Your task to perform on an android device: Go to battery settings Image 0: 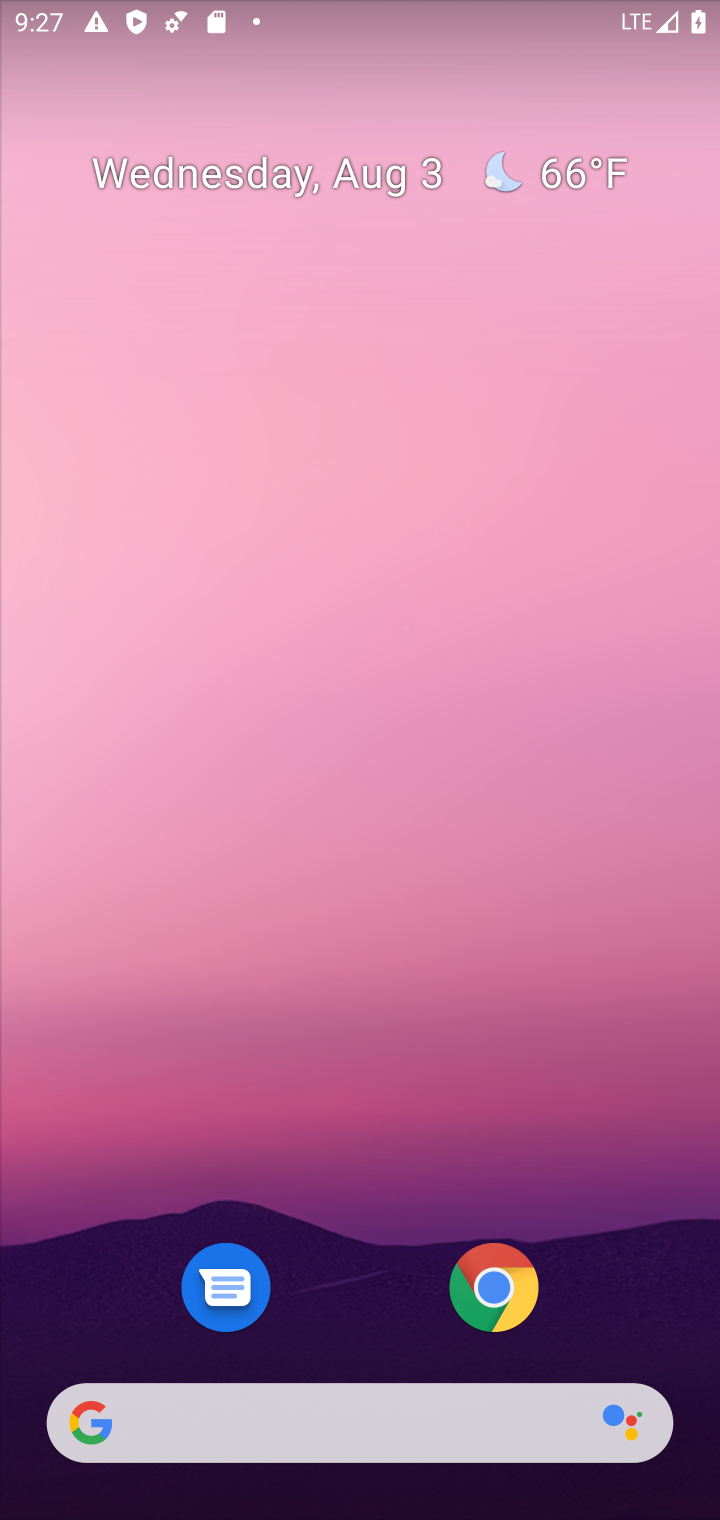
Step 0: drag from (314, 1294) to (292, 674)
Your task to perform on an android device: Go to battery settings Image 1: 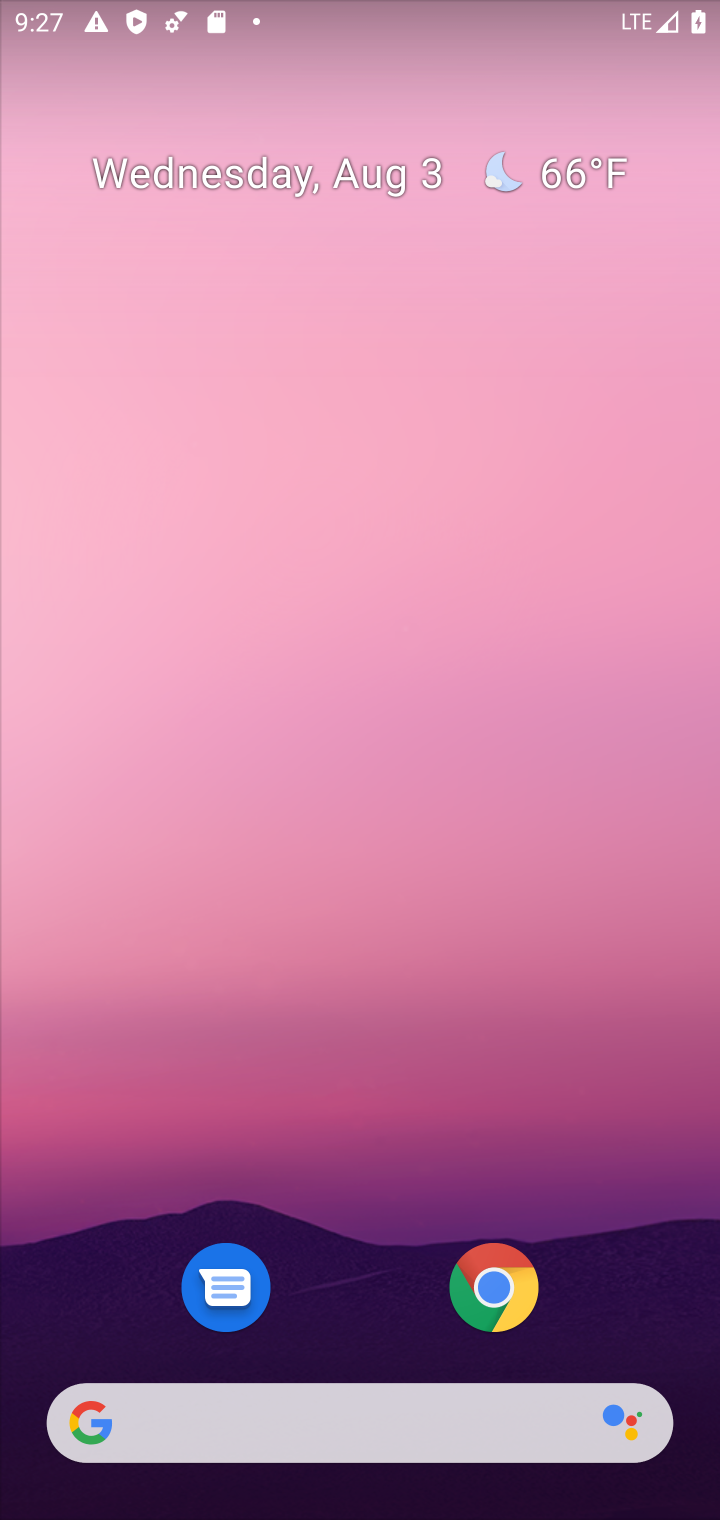
Step 1: drag from (354, 1232) to (541, 3)
Your task to perform on an android device: Go to battery settings Image 2: 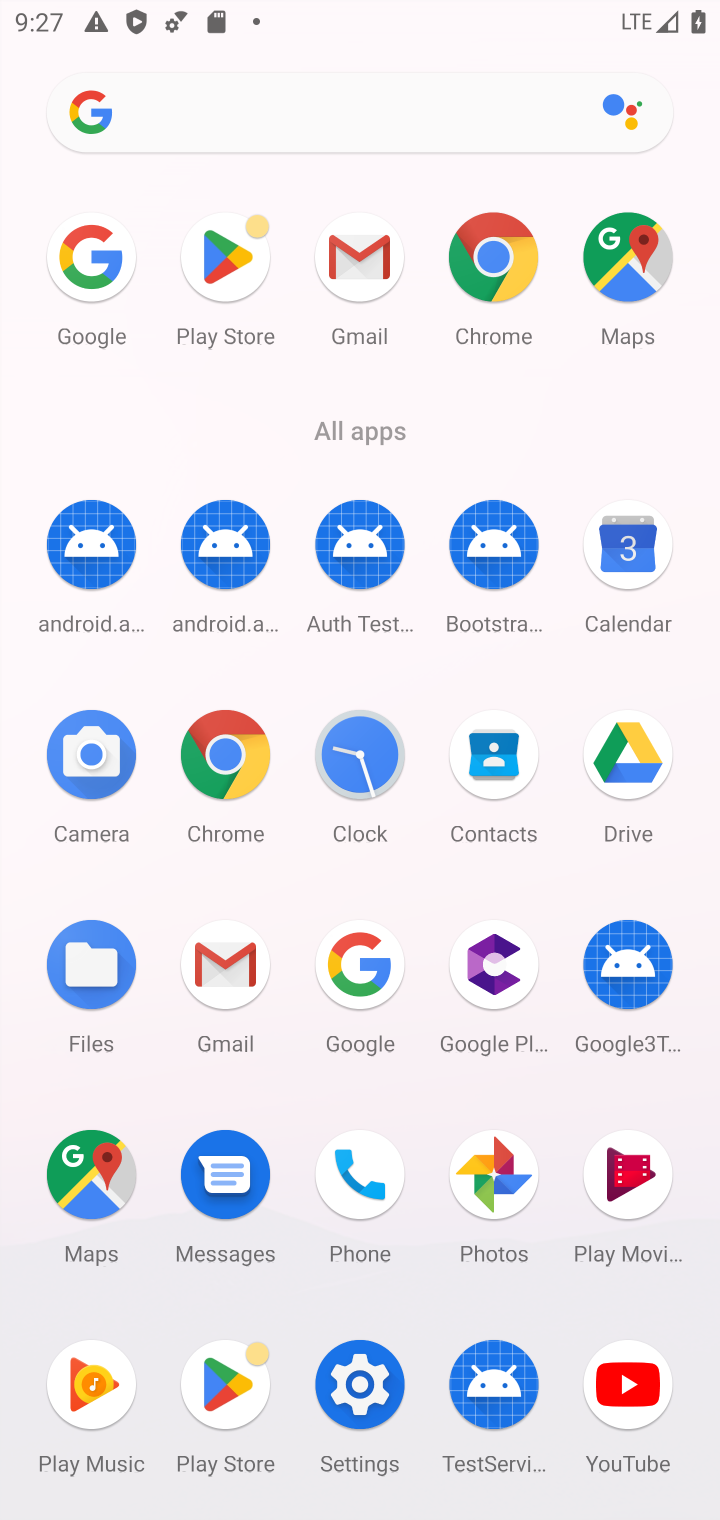
Step 2: click (353, 1378)
Your task to perform on an android device: Go to battery settings Image 3: 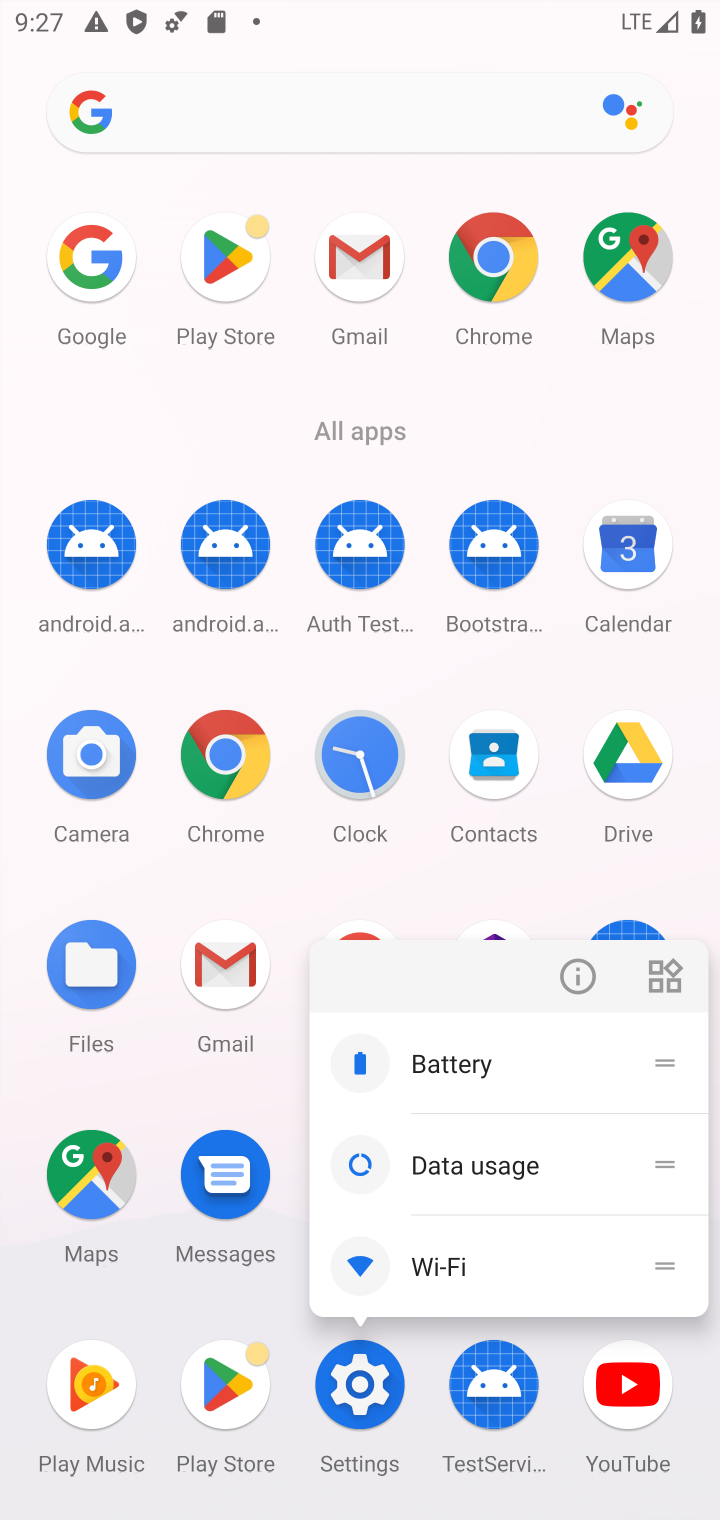
Step 3: click (361, 1385)
Your task to perform on an android device: Go to battery settings Image 4: 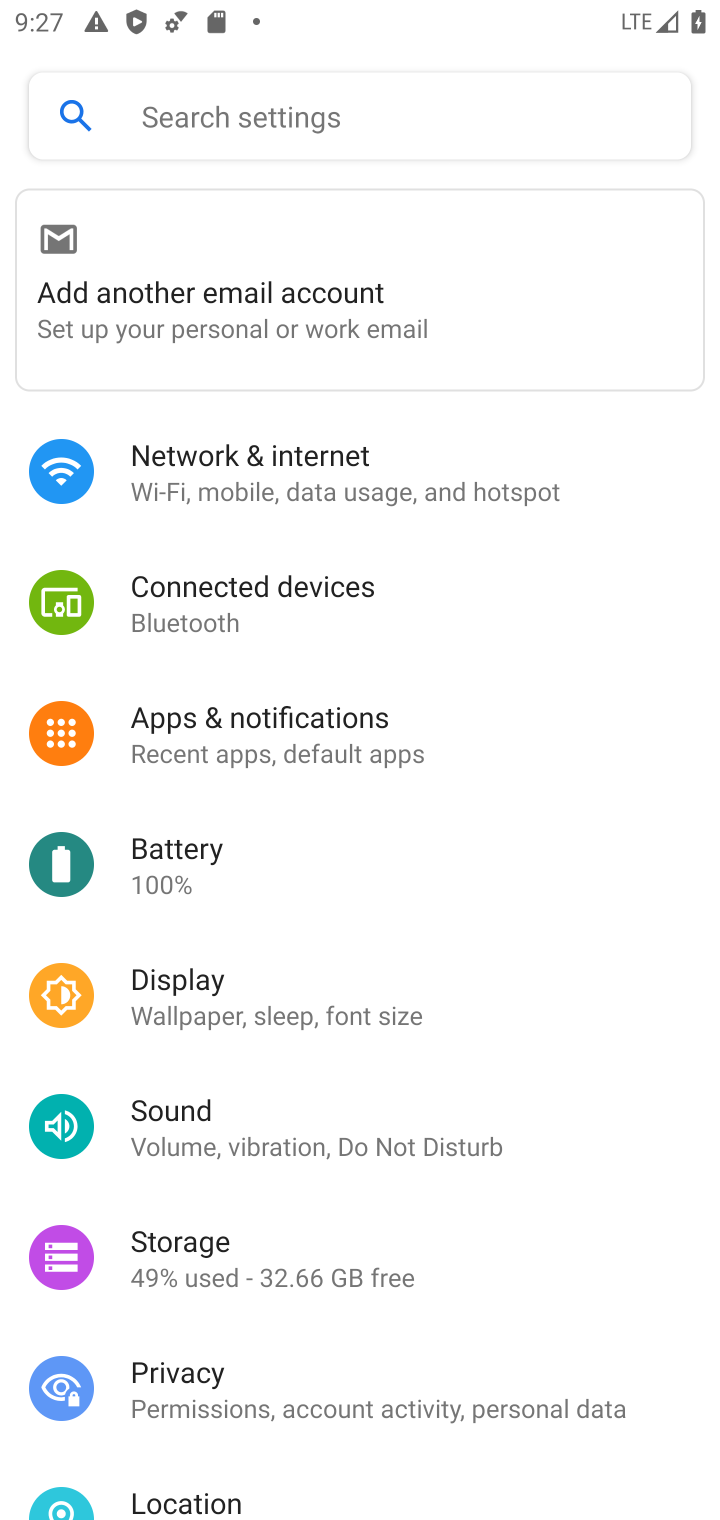
Step 4: drag from (173, 662) to (663, 736)
Your task to perform on an android device: Go to battery settings Image 5: 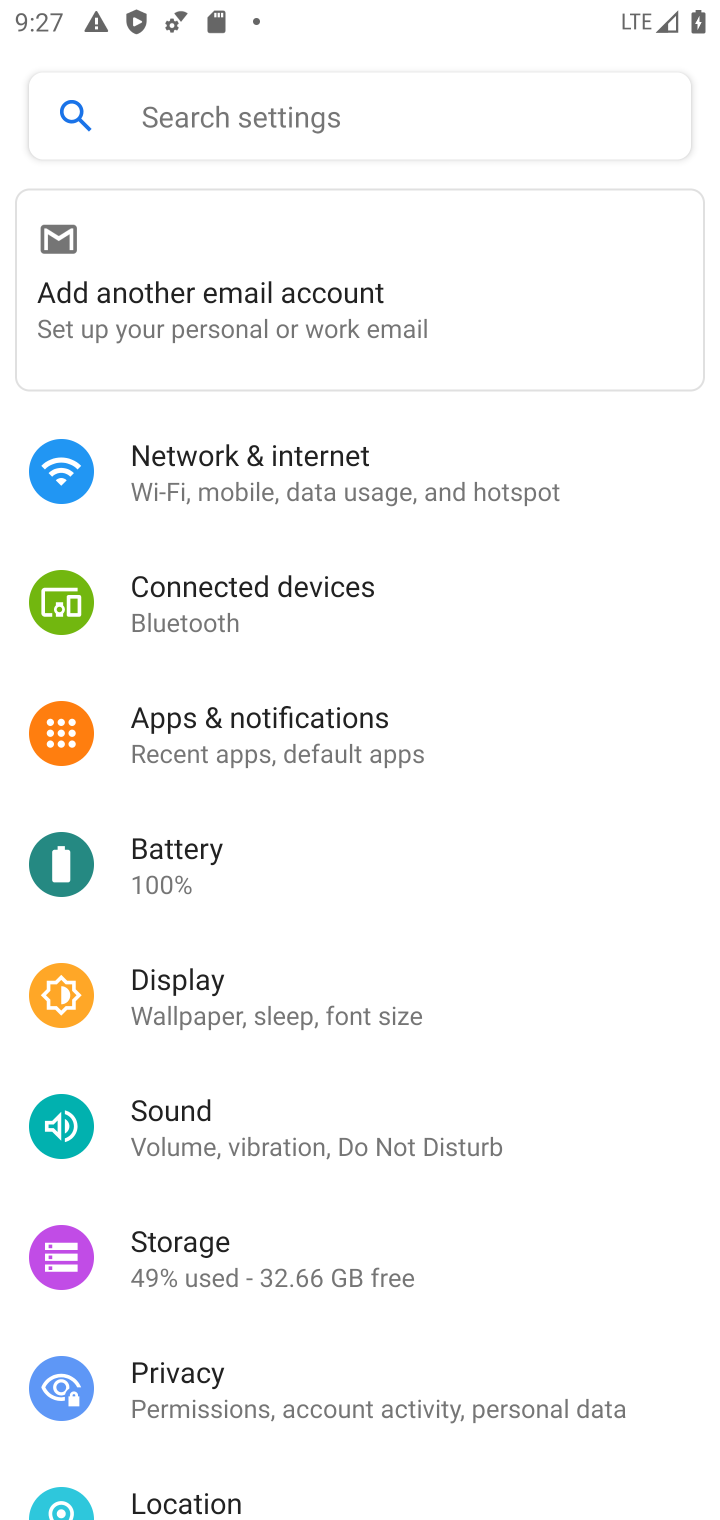
Step 5: click (222, 862)
Your task to perform on an android device: Go to battery settings Image 6: 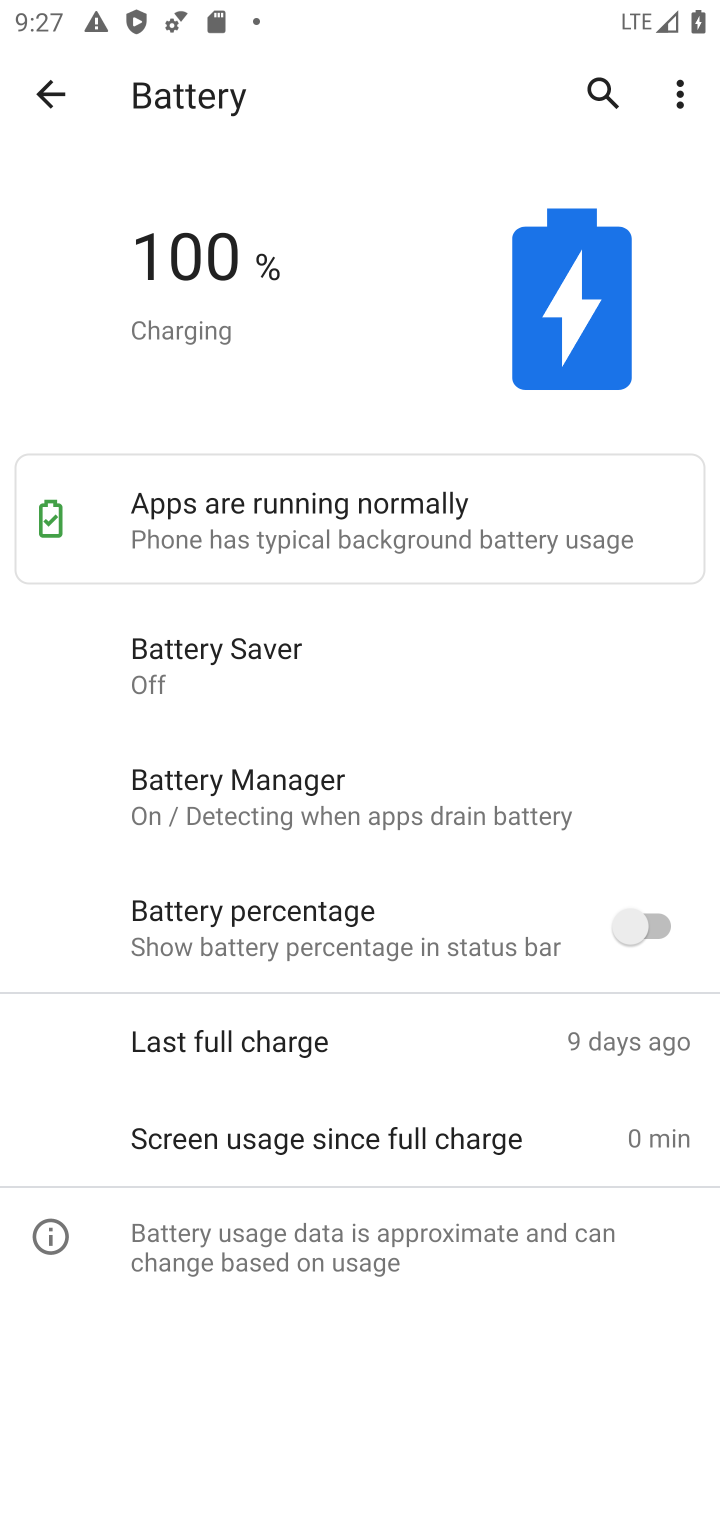
Step 6: task complete